Your task to perform on an android device: When is my next appointment? Image 0: 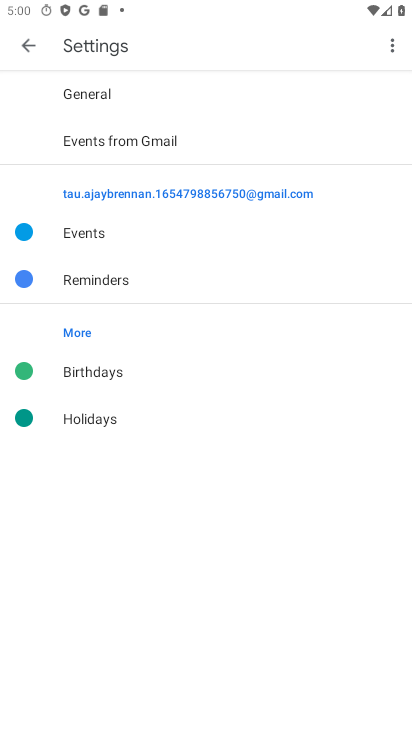
Step 0: press home button
Your task to perform on an android device: When is my next appointment? Image 1: 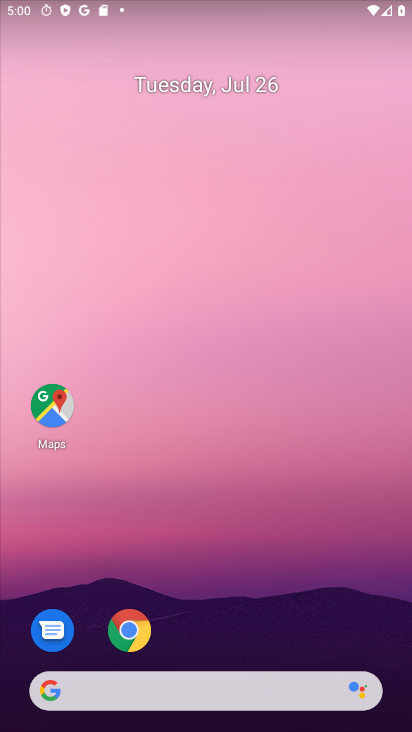
Step 1: drag from (310, 614) to (247, 46)
Your task to perform on an android device: When is my next appointment? Image 2: 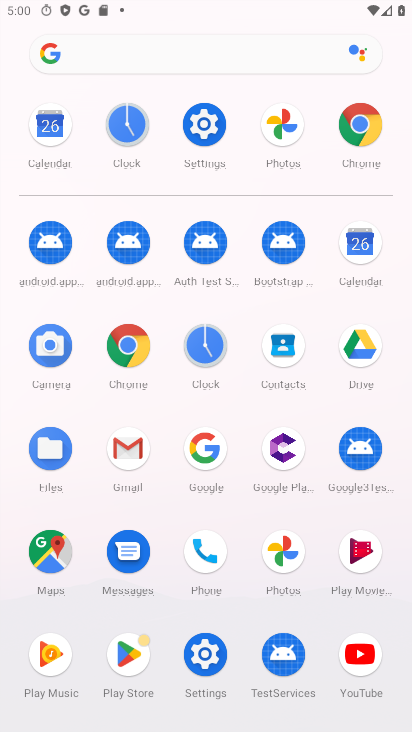
Step 2: click (366, 237)
Your task to perform on an android device: When is my next appointment? Image 3: 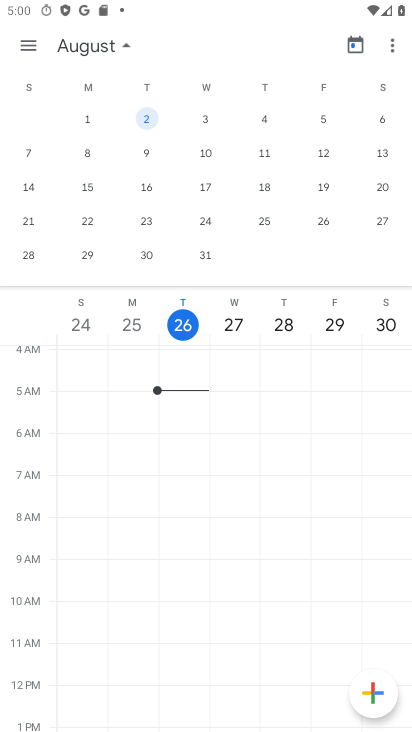
Step 3: click (86, 42)
Your task to perform on an android device: When is my next appointment? Image 4: 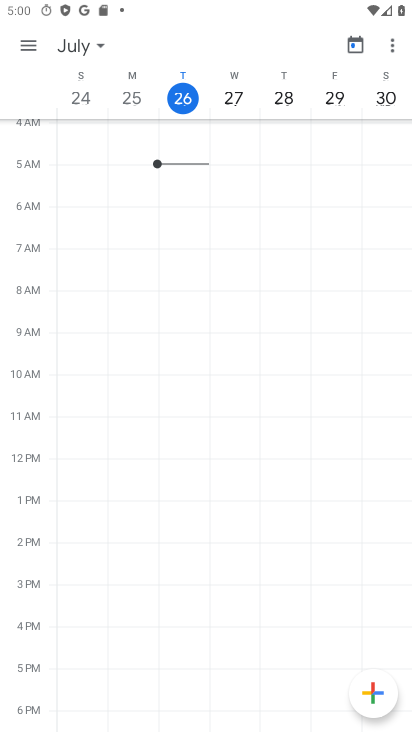
Step 4: click (86, 42)
Your task to perform on an android device: When is my next appointment? Image 5: 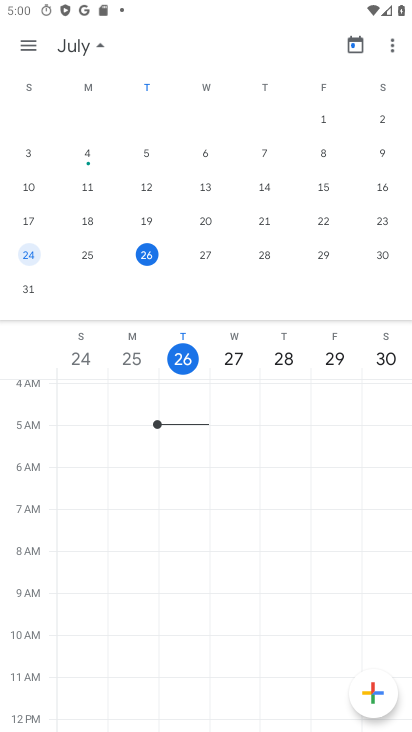
Step 5: click (140, 242)
Your task to perform on an android device: When is my next appointment? Image 6: 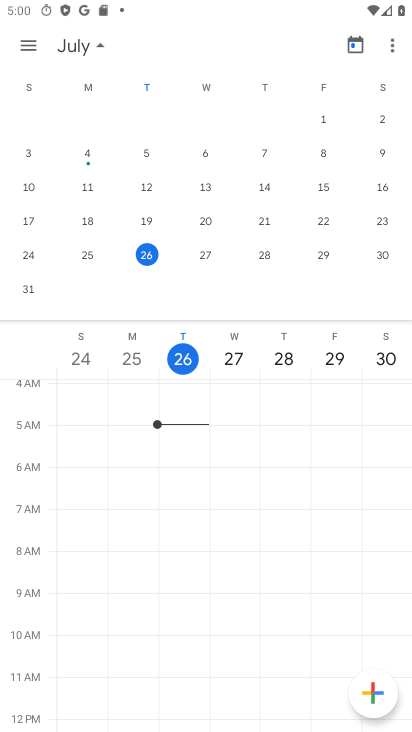
Step 6: task complete